Your task to perform on an android device: Search for pizza restaurants on Maps Image 0: 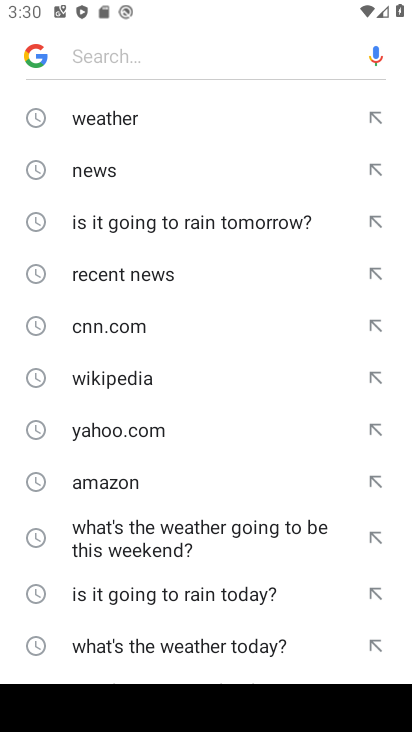
Step 0: press home button
Your task to perform on an android device: Search for pizza restaurants on Maps Image 1: 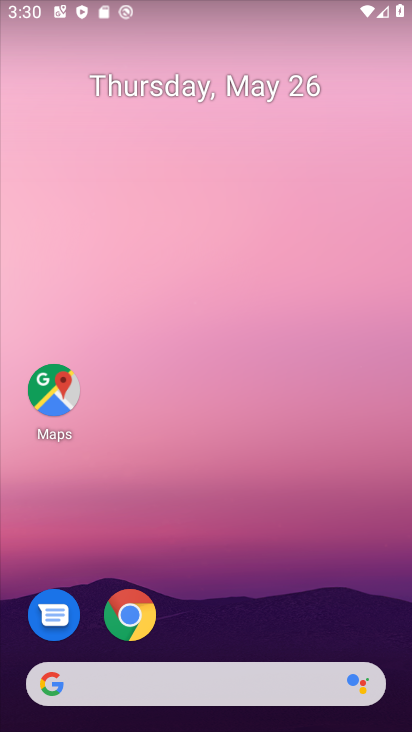
Step 1: click (58, 398)
Your task to perform on an android device: Search for pizza restaurants on Maps Image 2: 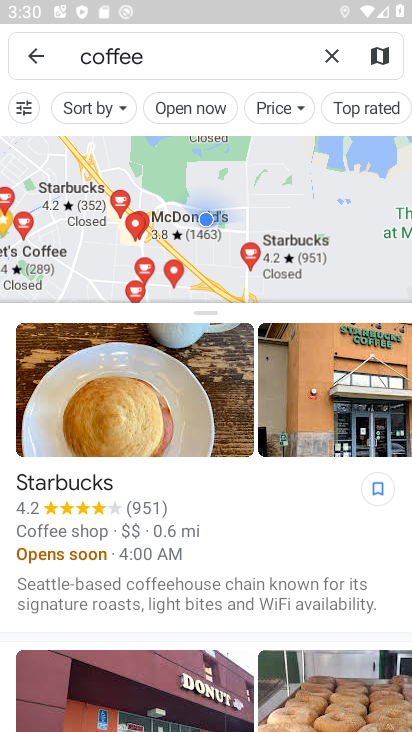
Step 2: click (199, 58)
Your task to perform on an android device: Search for pizza restaurants on Maps Image 3: 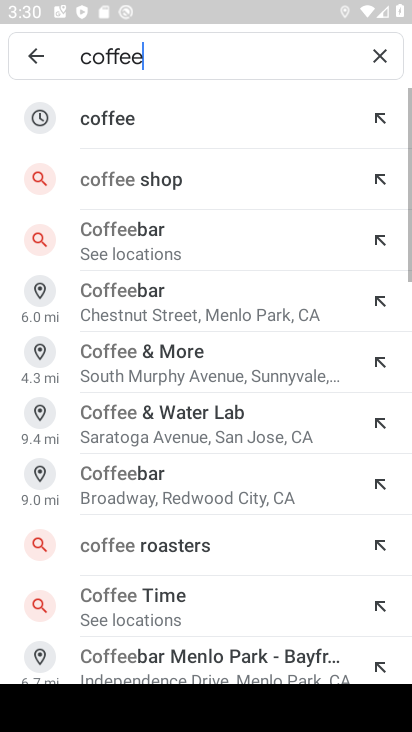
Step 3: click (381, 53)
Your task to perform on an android device: Search for pizza restaurants on Maps Image 4: 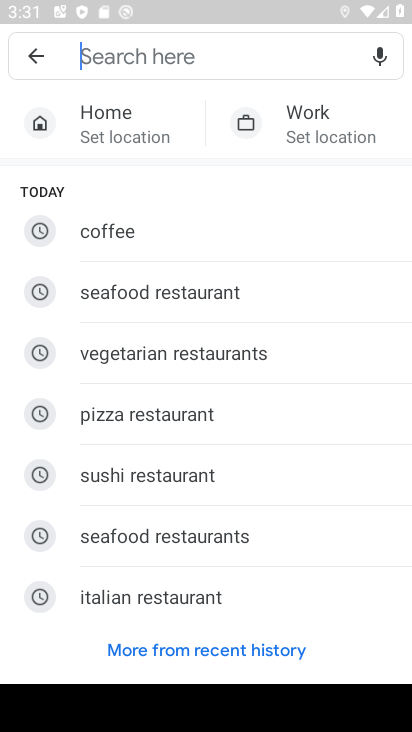
Step 4: click (170, 427)
Your task to perform on an android device: Search for pizza restaurants on Maps Image 5: 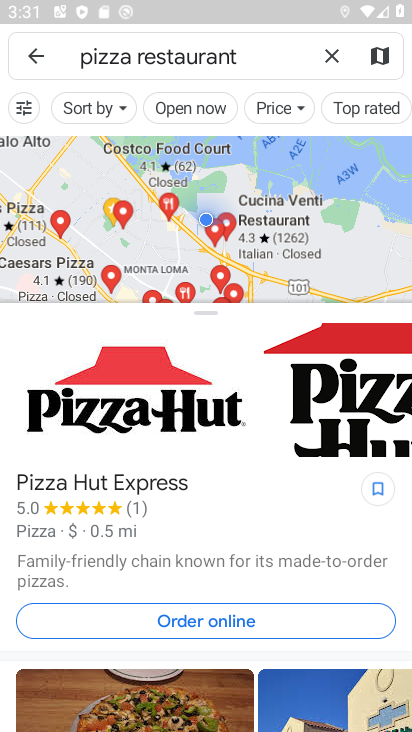
Step 5: task complete